Your task to perform on an android device: toggle sleep mode Image 0: 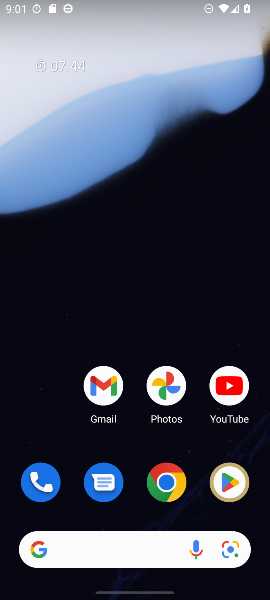
Step 0: press home button
Your task to perform on an android device: toggle sleep mode Image 1: 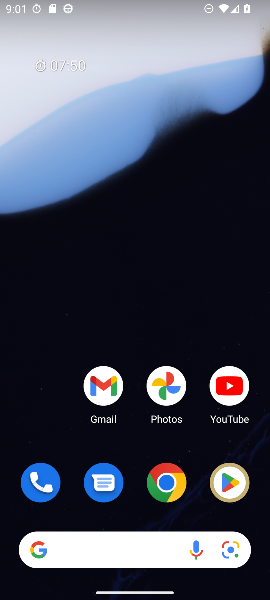
Step 1: drag from (137, 455) to (164, 16)
Your task to perform on an android device: toggle sleep mode Image 2: 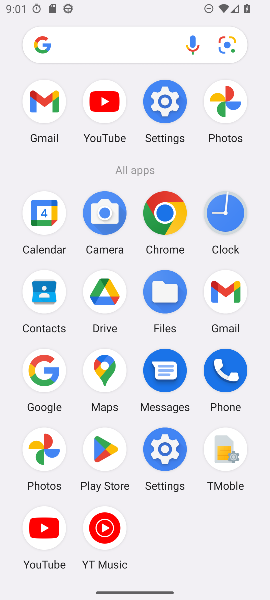
Step 2: click (163, 439)
Your task to perform on an android device: toggle sleep mode Image 3: 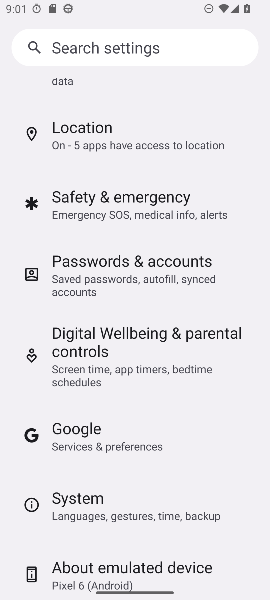
Step 3: drag from (121, 131) to (96, 589)
Your task to perform on an android device: toggle sleep mode Image 4: 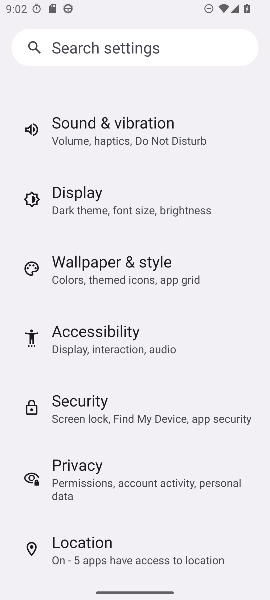
Step 4: click (85, 214)
Your task to perform on an android device: toggle sleep mode Image 5: 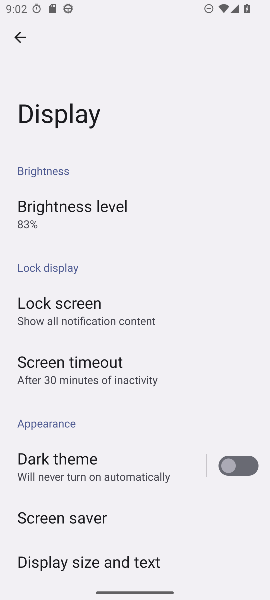
Step 5: task complete